Your task to perform on an android device: turn off notifications in google photos Image 0: 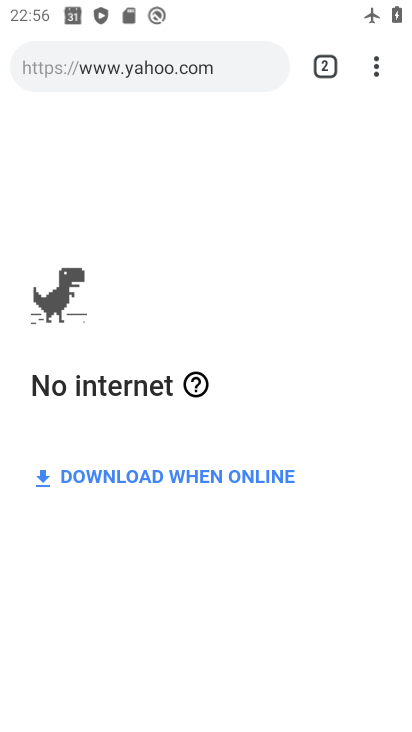
Step 0: press home button
Your task to perform on an android device: turn off notifications in google photos Image 1: 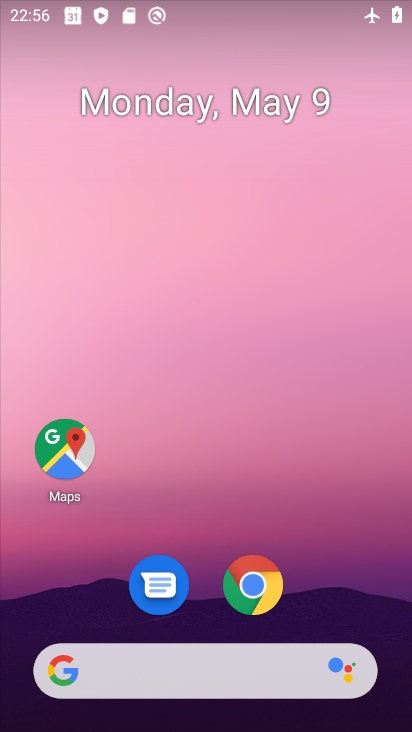
Step 1: drag from (285, 520) to (287, 0)
Your task to perform on an android device: turn off notifications in google photos Image 2: 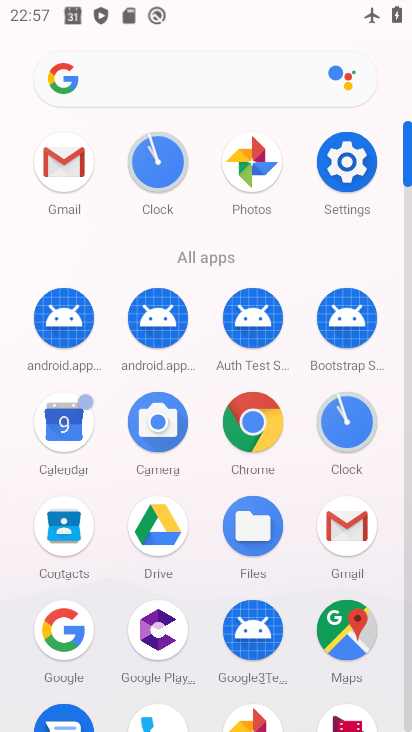
Step 2: click (360, 153)
Your task to perform on an android device: turn off notifications in google photos Image 3: 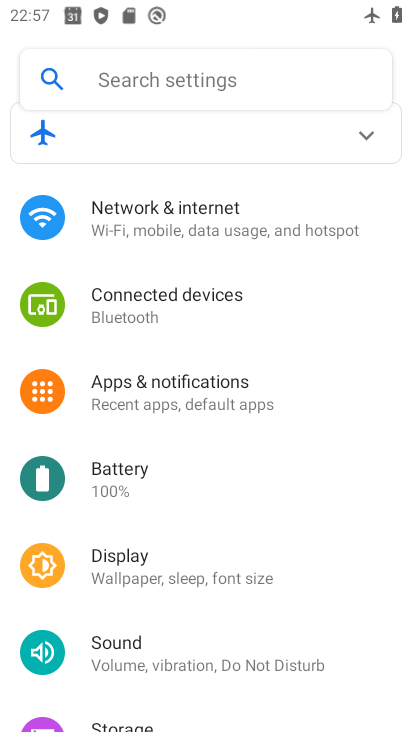
Step 3: click (203, 394)
Your task to perform on an android device: turn off notifications in google photos Image 4: 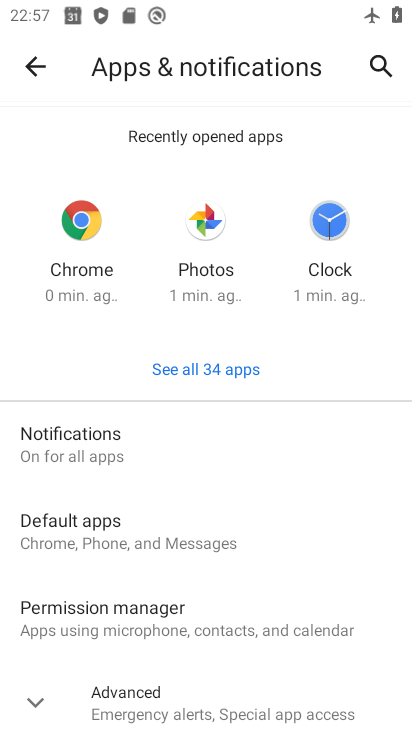
Step 4: click (218, 211)
Your task to perform on an android device: turn off notifications in google photos Image 5: 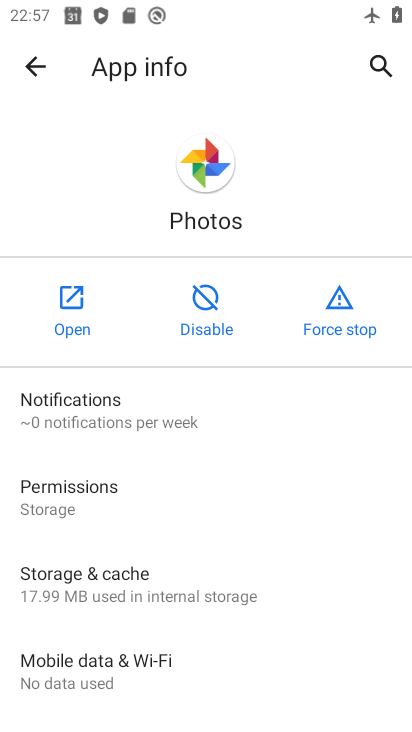
Step 5: click (105, 399)
Your task to perform on an android device: turn off notifications in google photos Image 6: 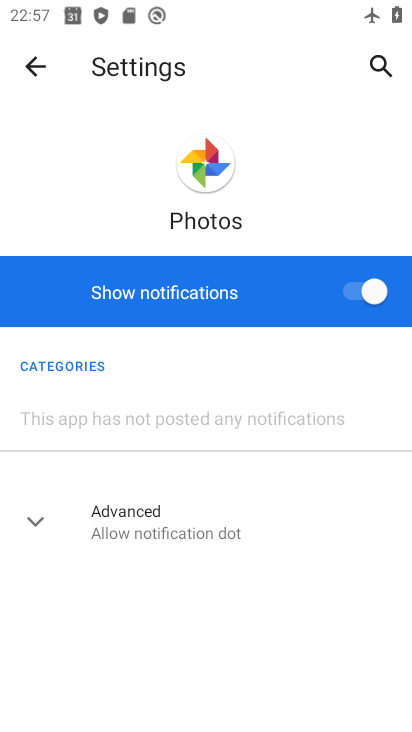
Step 6: click (356, 290)
Your task to perform on an android device: turn off notifications in google photos Image 7: 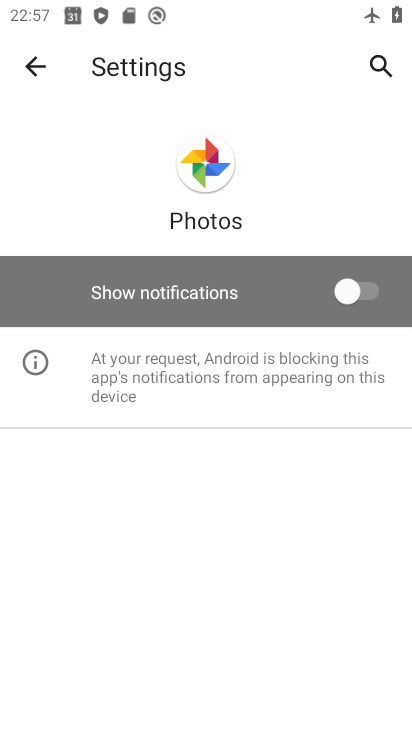
Step 7: task complete